Your task to perform on an android device: show emergency info Image 0: 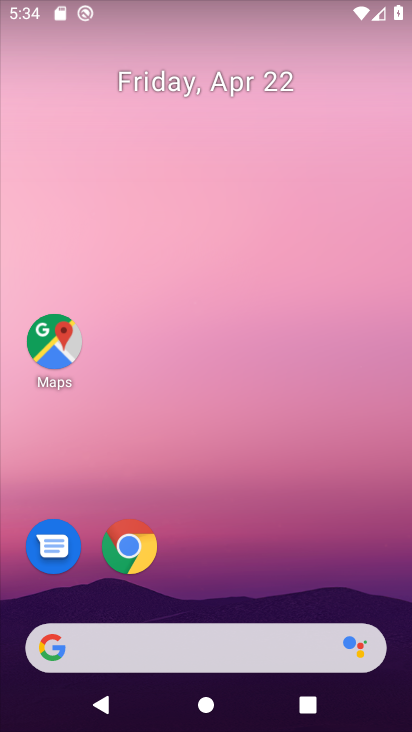
Step 0: drag from (252, 581) to (231, 188)
Your task to perform on an android device: show emergency info Image 1: 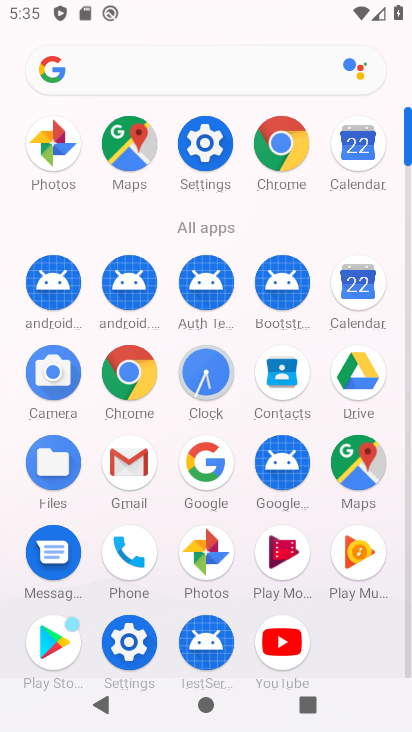
Step 1: click (189, 176)
Your task to perform on an android device: show emergency info Image 2: 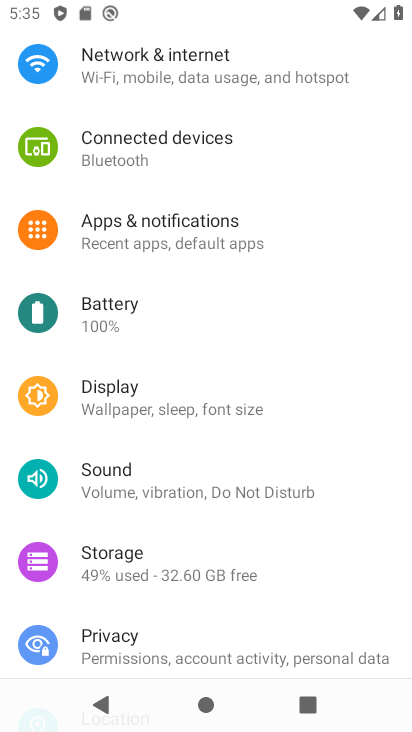
Step 2: drag from (231, 205) to (237, 81)
Your task to perform on an android device: show emergency info Image 3: 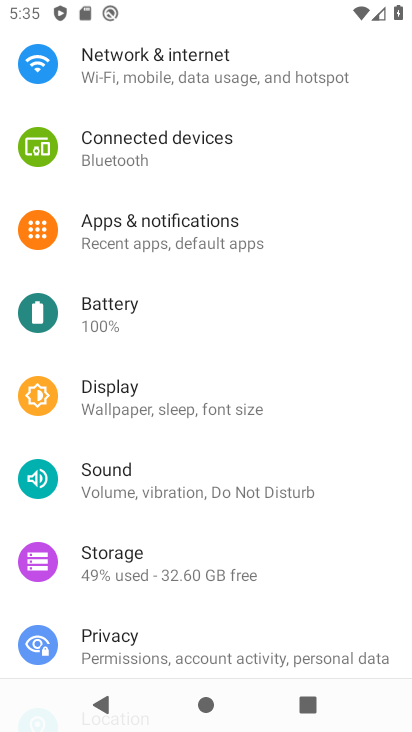
Step 3: drag from (172, 621) to (285, 83)
Your task to perform on an android device: show emergency info Image 4: 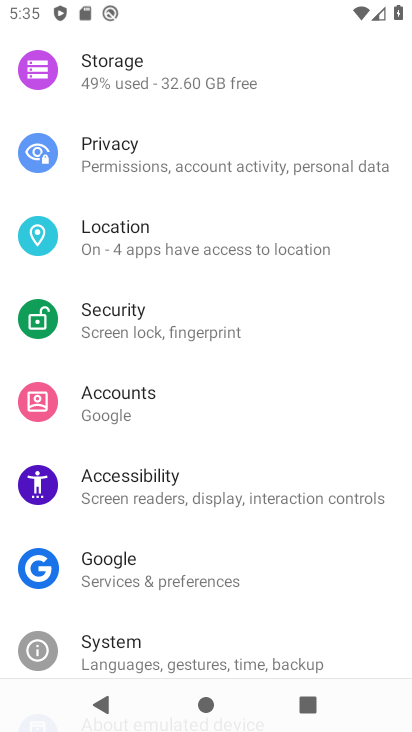
Step 4: drag from (172, 604) to (250, 14)
Your task to perform on an android device: show emergency info Image 5: 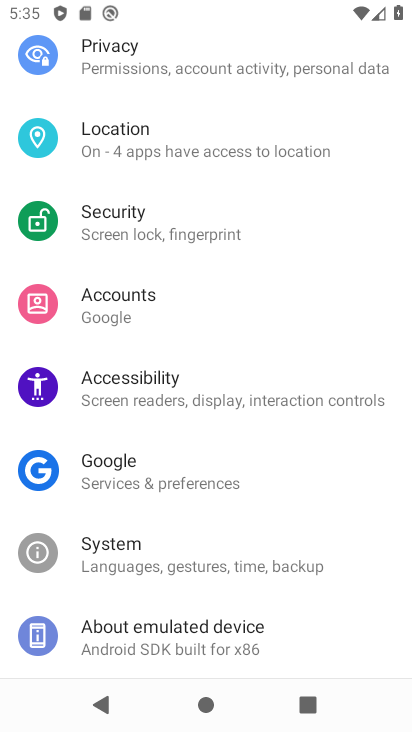
Step 5: click (136, 649)
Your task to perform on an android device: show emergency info Image 6: 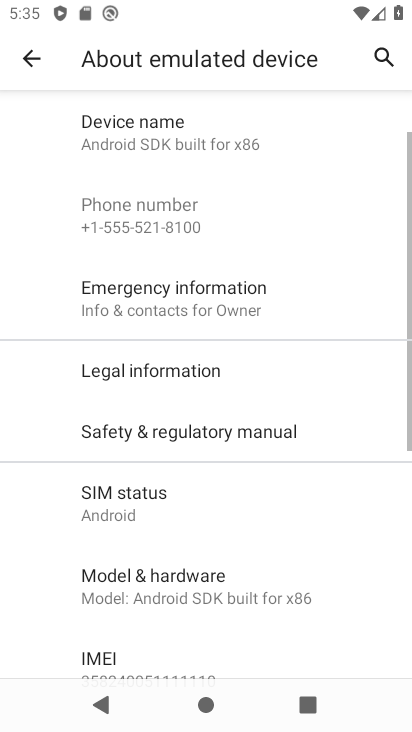
Step 6: click (130, 295)
Your task to perform on an android device: show emergency info Image 7: 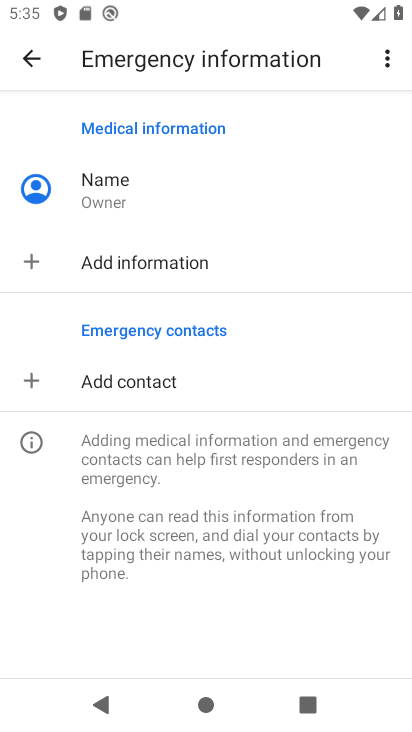
Step 7: task complete